Your task to perform on an android device: Open accessibility settings Image 0: 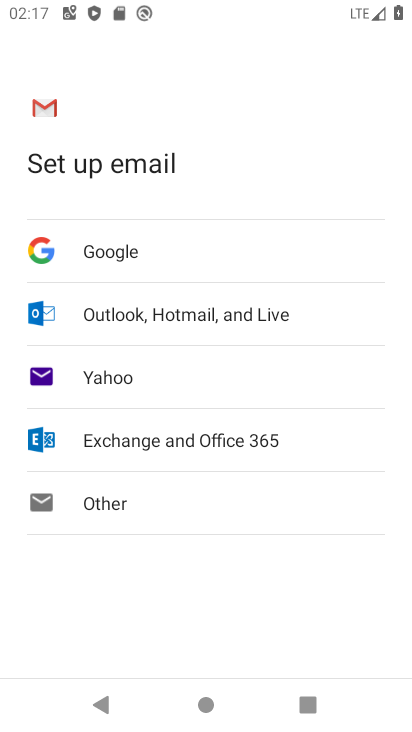
Step 0: press home button
Your task to perform on an android device: Open accessibility settings Image 1: 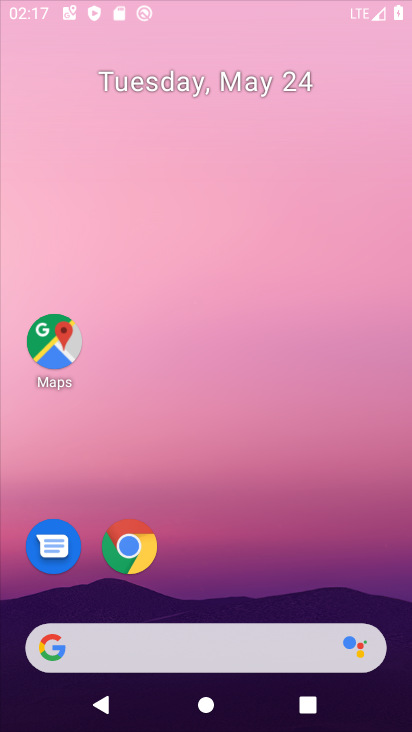
Step 1: drag from (156, 533) to (226, 91)
Your task to perform on an android device: Open accessibility settings Image 2: 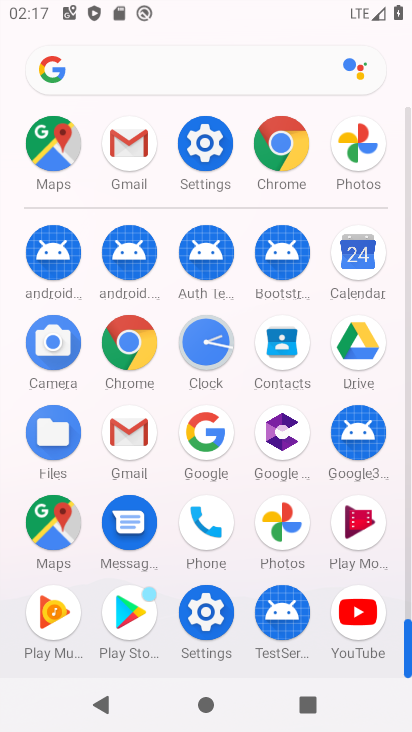
Step 2: click (215, 144)
Your task to perform on an android device: Open accessibility settings Image 3: 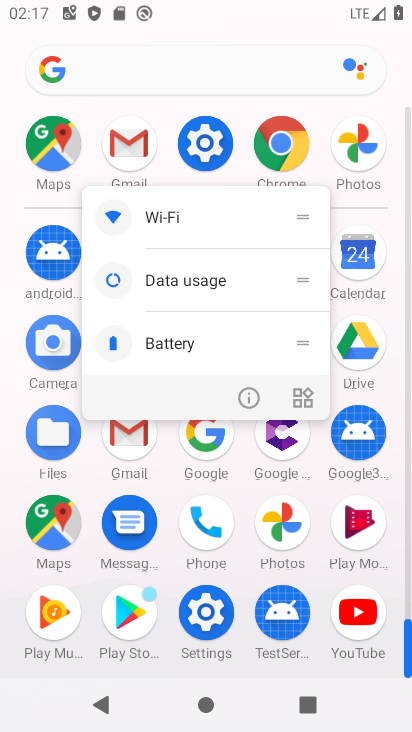
Step 3: click (242, 384)
Your task to perform on an android device: Open accessibility settings Image 4: 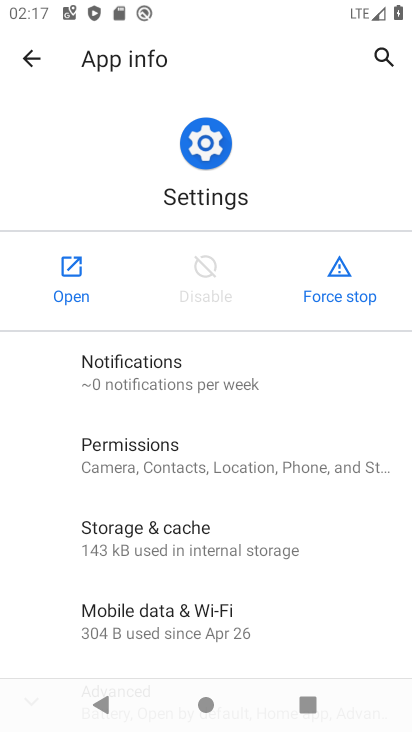
Step 4: click (76, 260)
Your task to perform on an android device: Open accessibility settings Image 5: 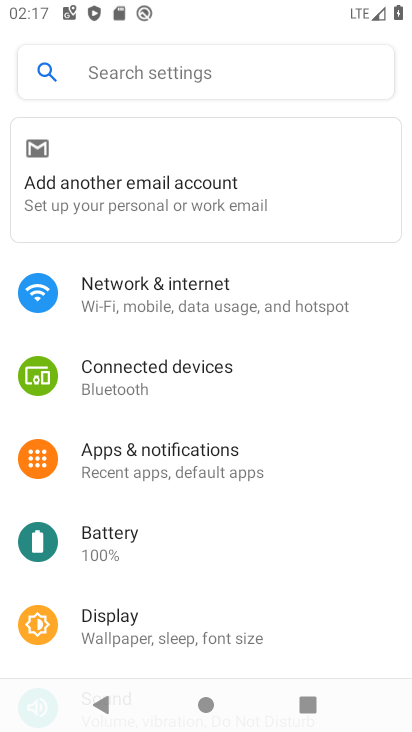
Step 5: drag from (194, 590) to (332, 49)
Your task to perform on an android device: Open accessibility settings Image 6: 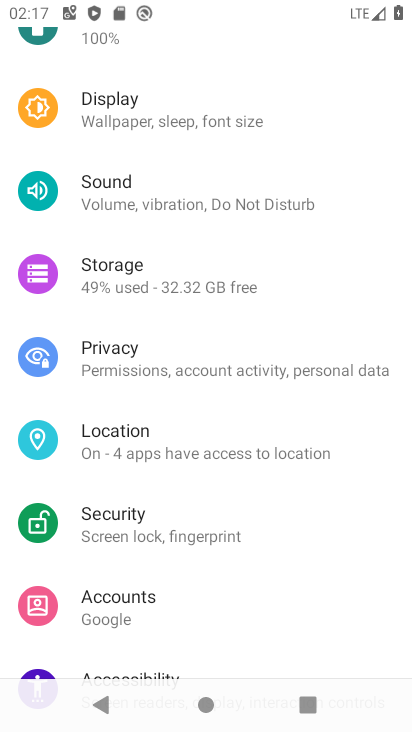
Step 6: drag from (209, 578) to (292, 163)
Your task to perform on an android device: Open accessibility settings Image 7: 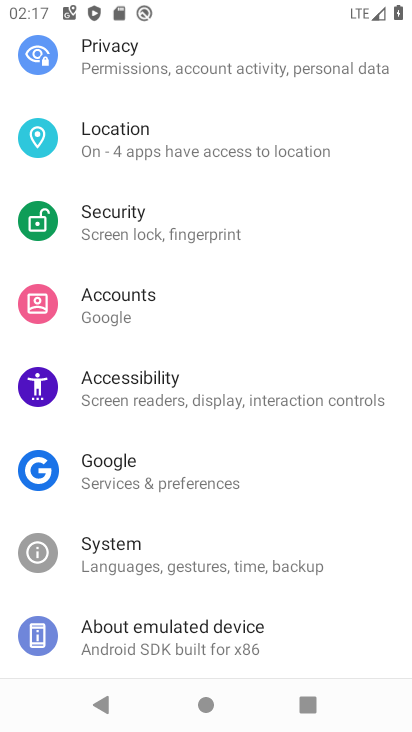
Step 7: click (146, 397)
Your task to perform on an android device: Open accessibility settings Image 8: 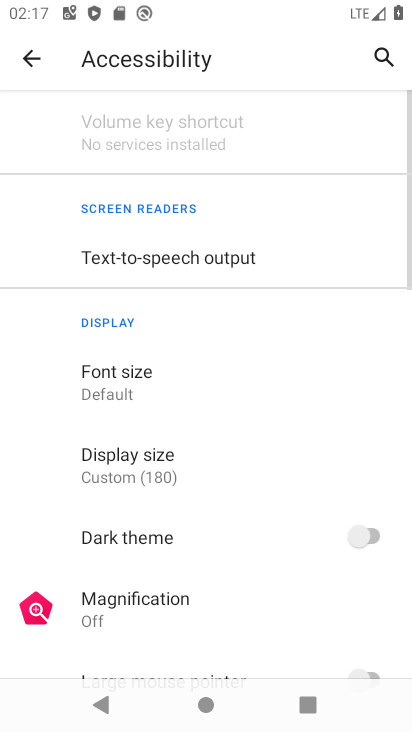
Step 8: task complete